Your task to perform on an android device: What's the weather going to be tomorrow? Image 0: 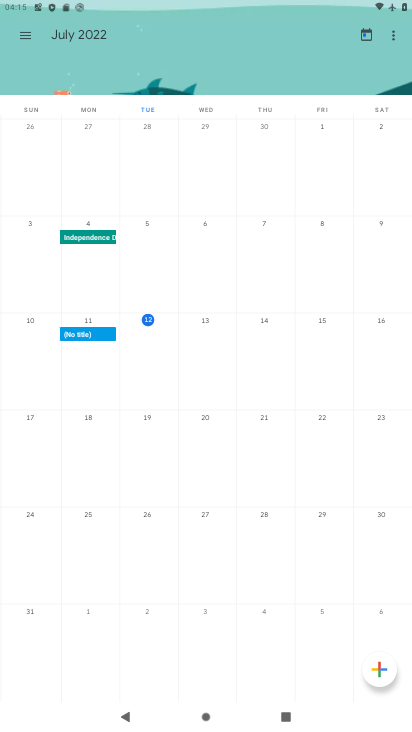
Step 0: press home button
Your task to perform on an android device: What's the weather going to be tomorrow? Image 1: 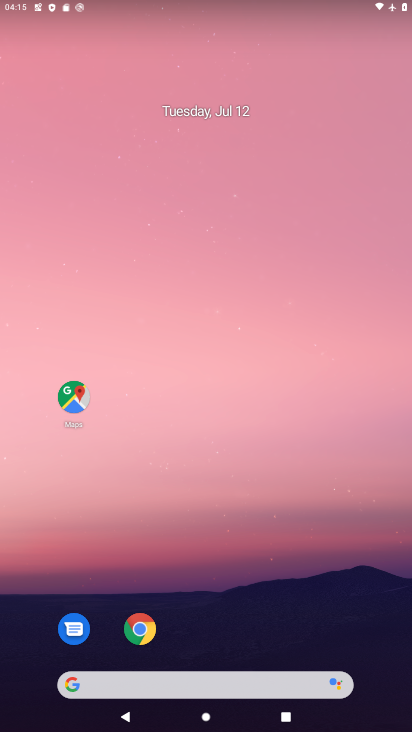
Step 1: click (139, 629)
Your task to perform on an android device: What's the weather going to be tomorrow? Image 2: 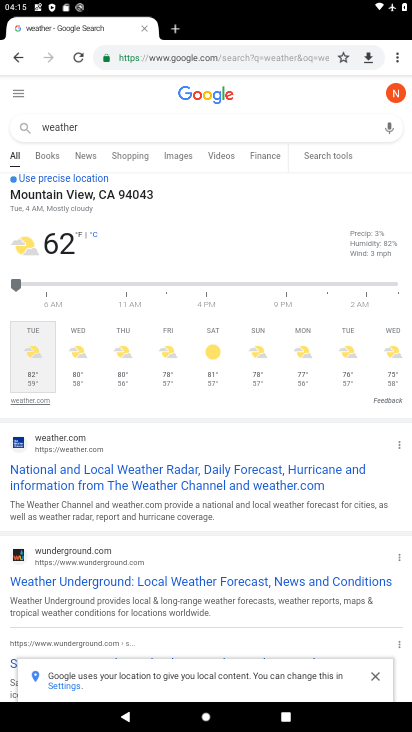
Step 2: click (71, 356)
Your task to perform on an android device: What's the weather going to be tomorrow? Image 3: 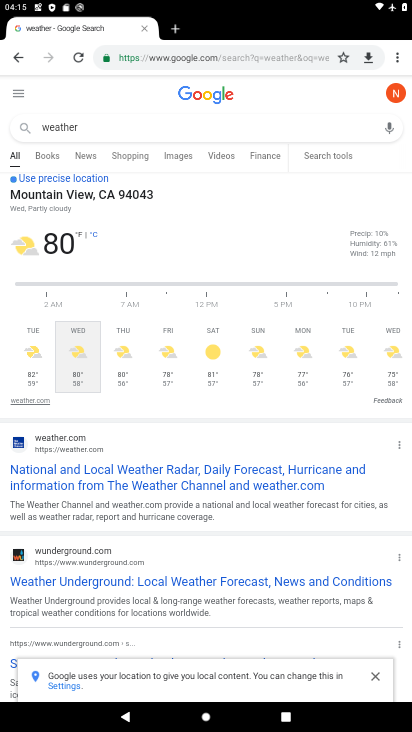
Step 3: task complete